Your task to perform on an android device: open app "Google Play Music" (install if not already installed) Image 0: 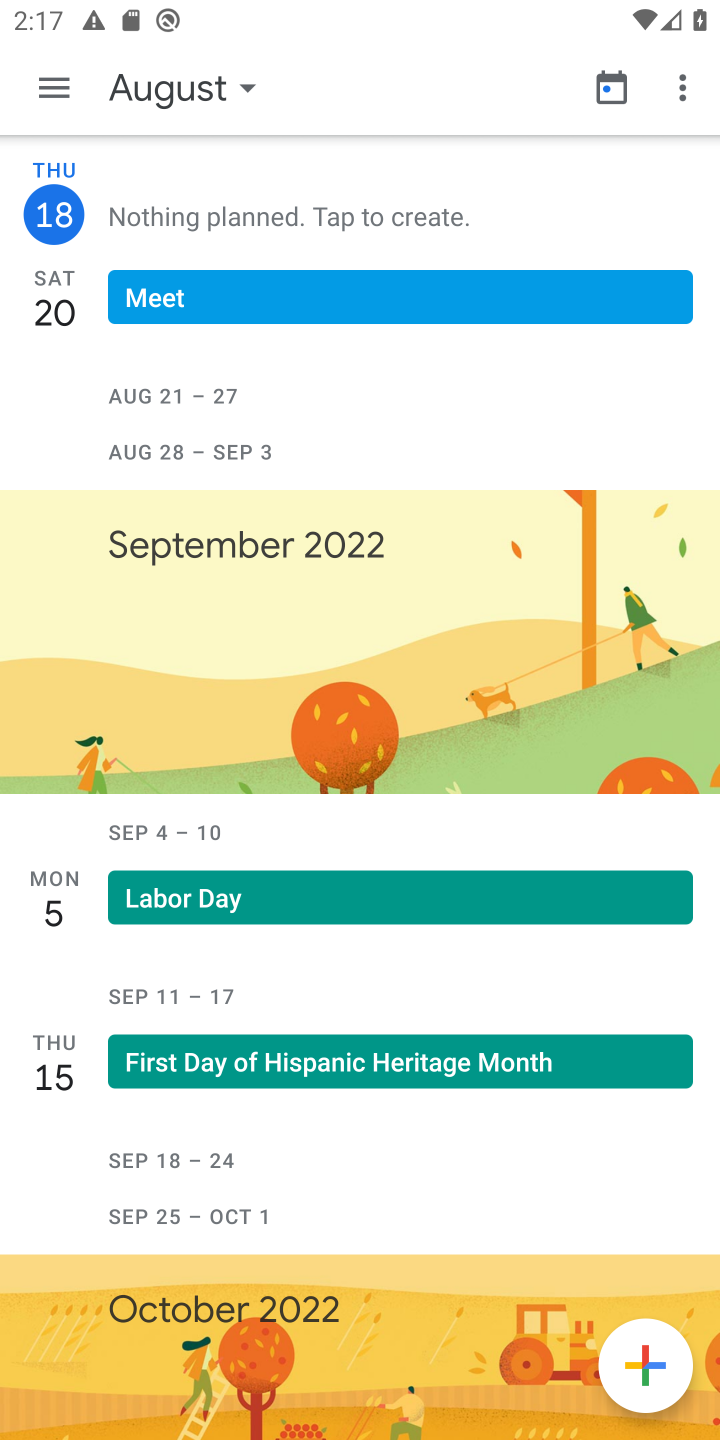
Step 0: press home button
Your task to perform on an android device: open app "Google Play Music" (install if not already installed) Image 1: 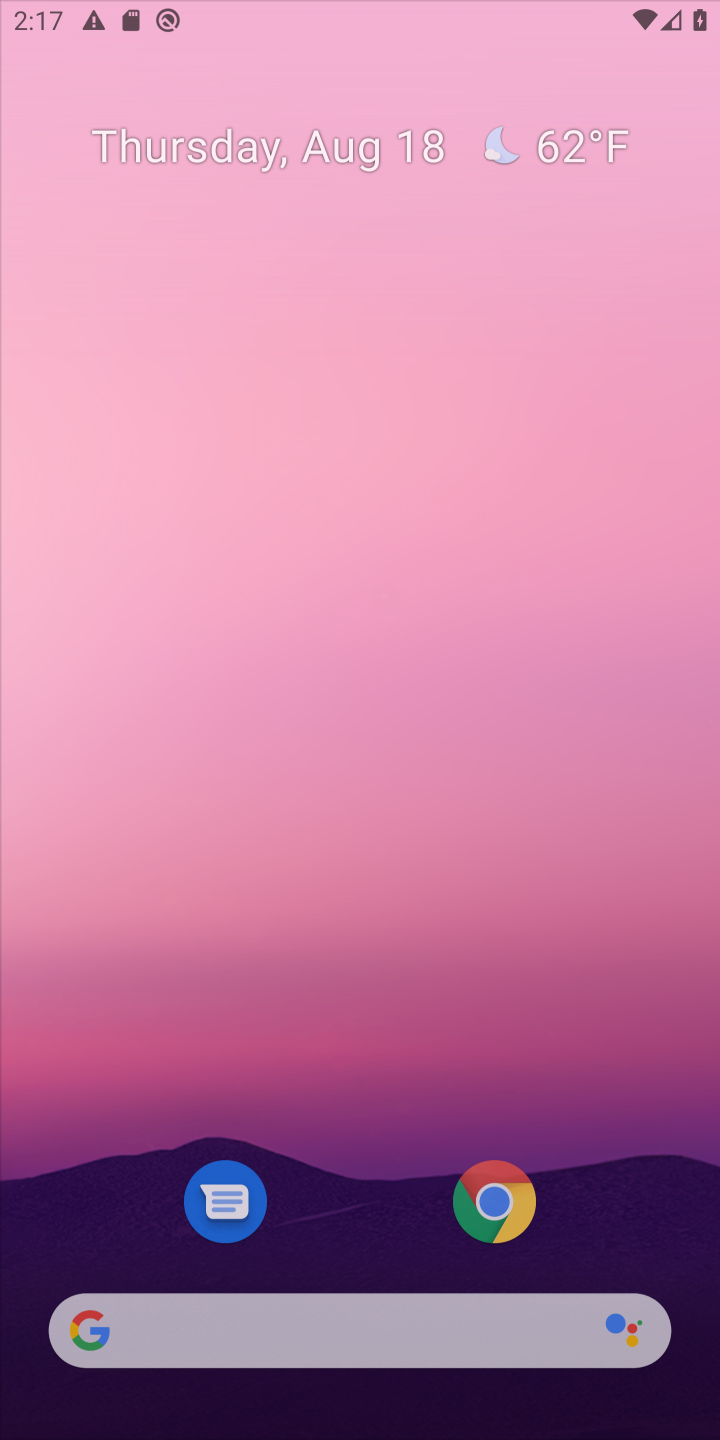
Step 1: drag from (315, 737) to (312, 432)
Your task to perform on an android device: open app "Google Play Music" (install if not already installed) Image 2: 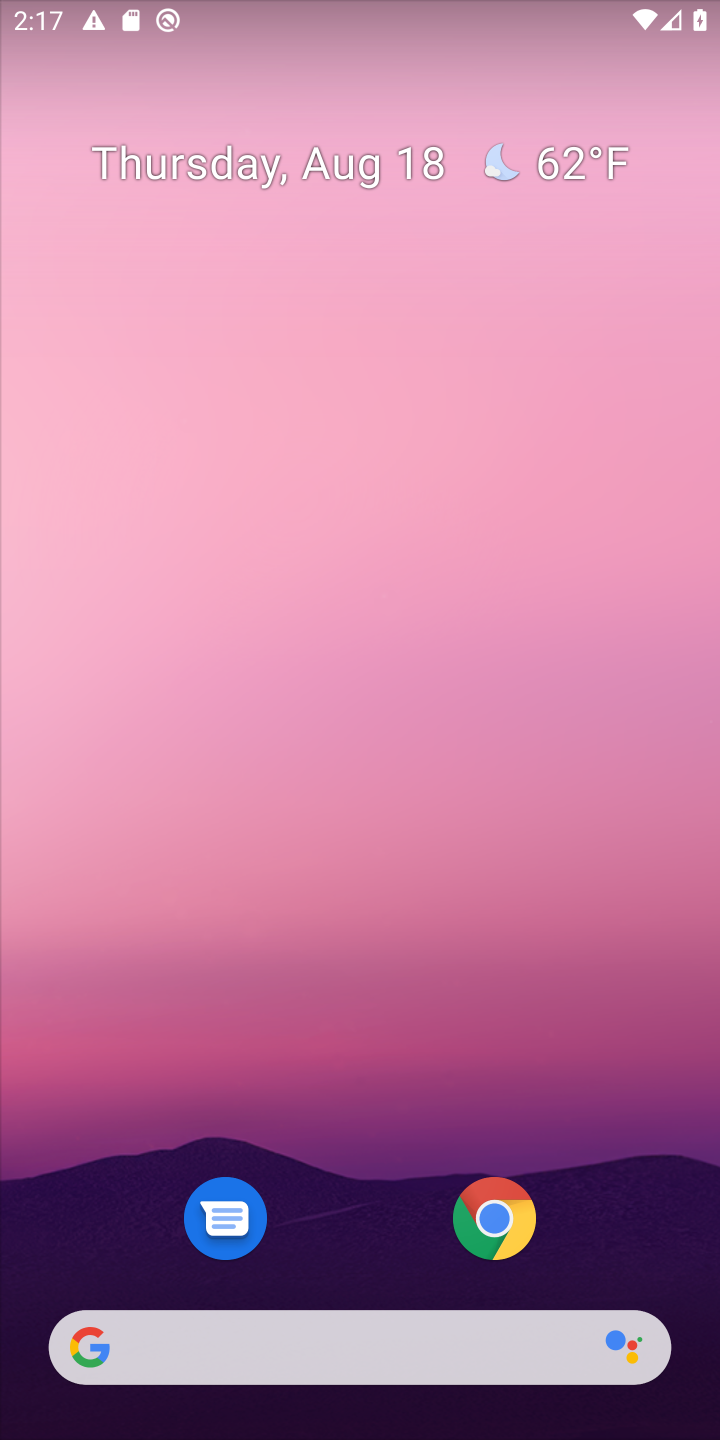
Step 2: drag from (353, 1212) to (361, 361)
Your task to perform on an android device: open app "Google Play Music" (install if not already installed) Image 3: 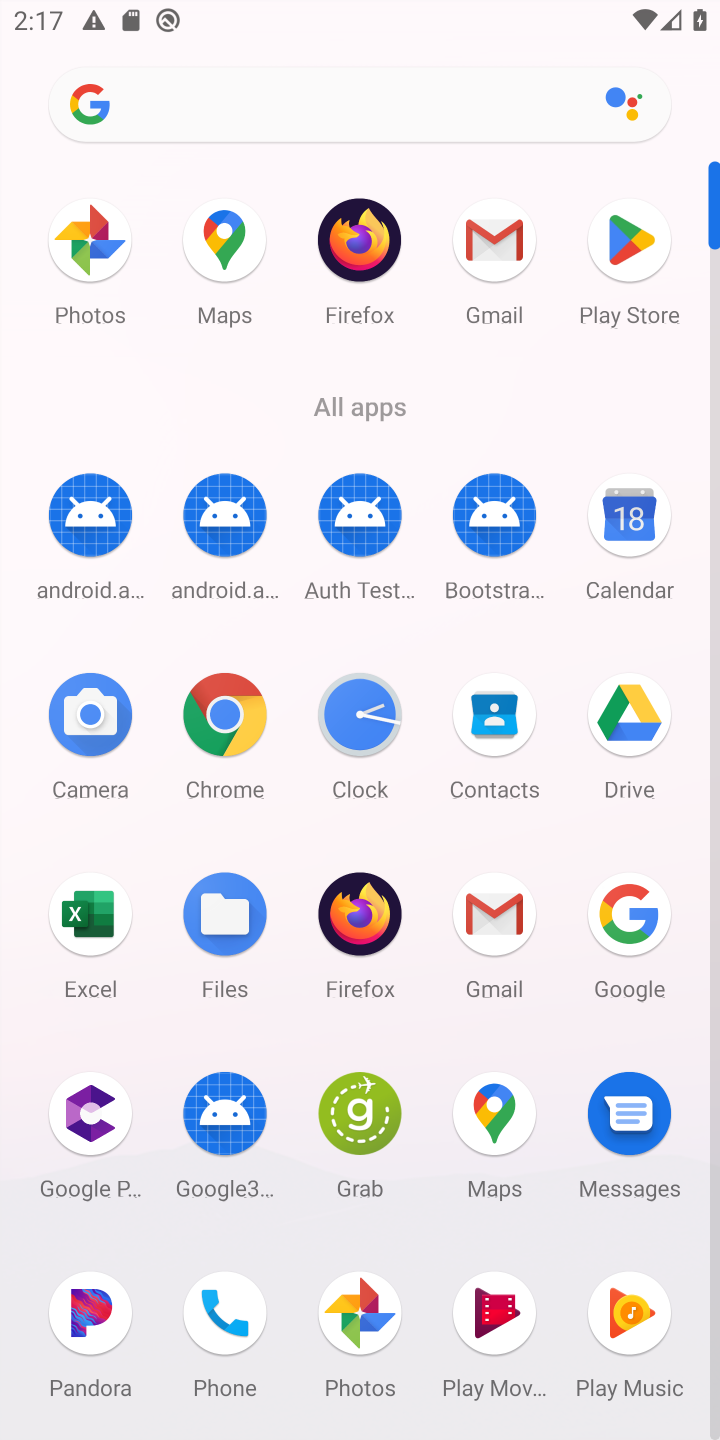
Step 3: click (603, 264)
Your task to perform on an android device: open app "Google Play Music" (install if not already installed) Image 4: 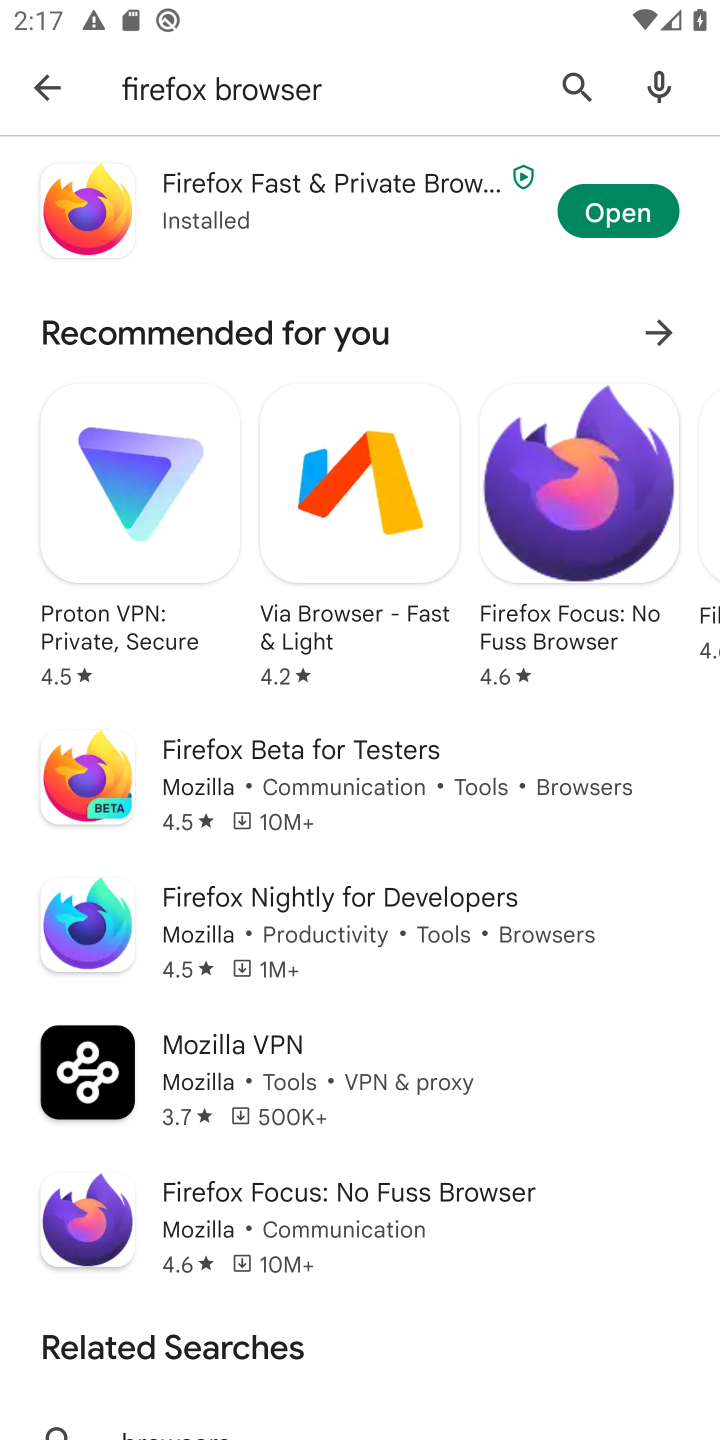
Step 4: click (559, 79)
Your task to perform on an android device: open app "Google Play Music" (install if not already installed) Image 5: 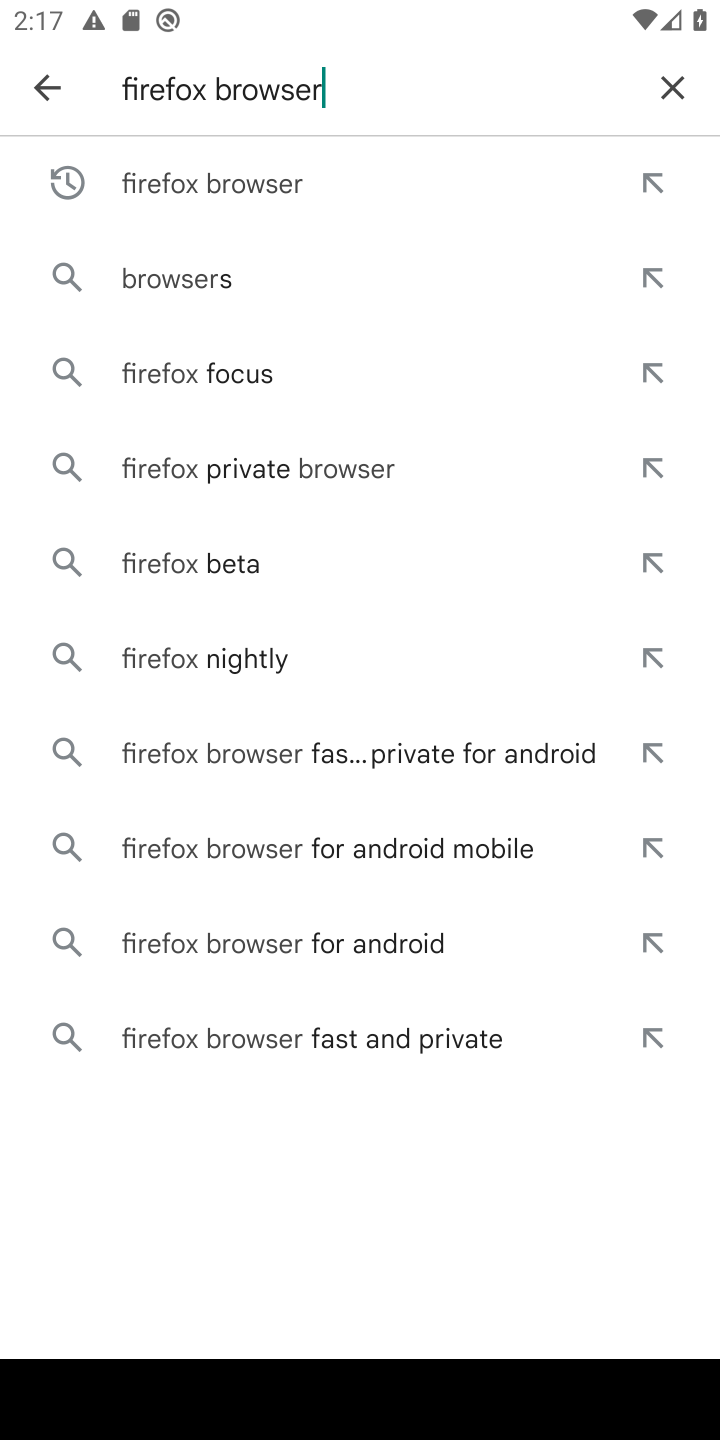
Step 5: click (676, 77)
Your task to perform on an android device: open app "Google Play Music" (install if not already installed) Image 6: 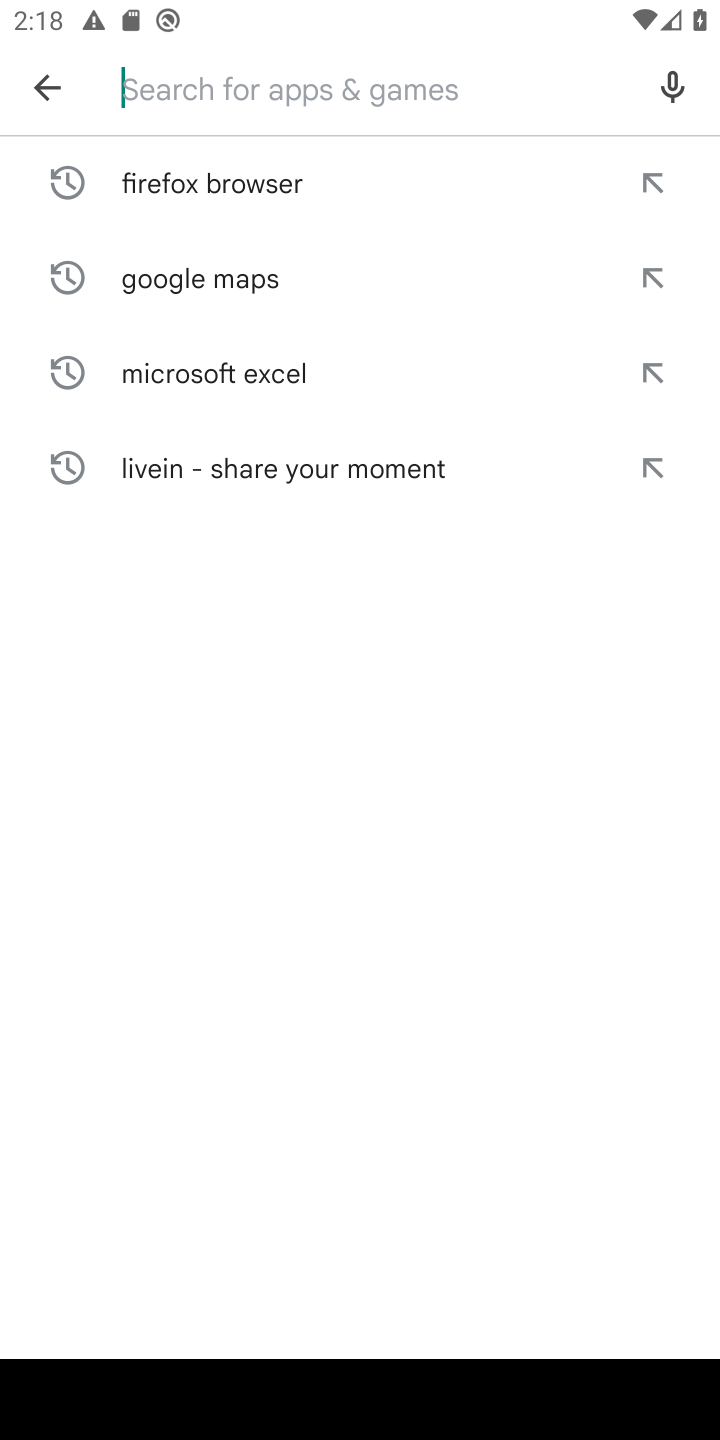
Step 6: type "Google Play Music"
Your task to perform on an android device: open app "Google Play Music" (install if not already installed) Image 7: 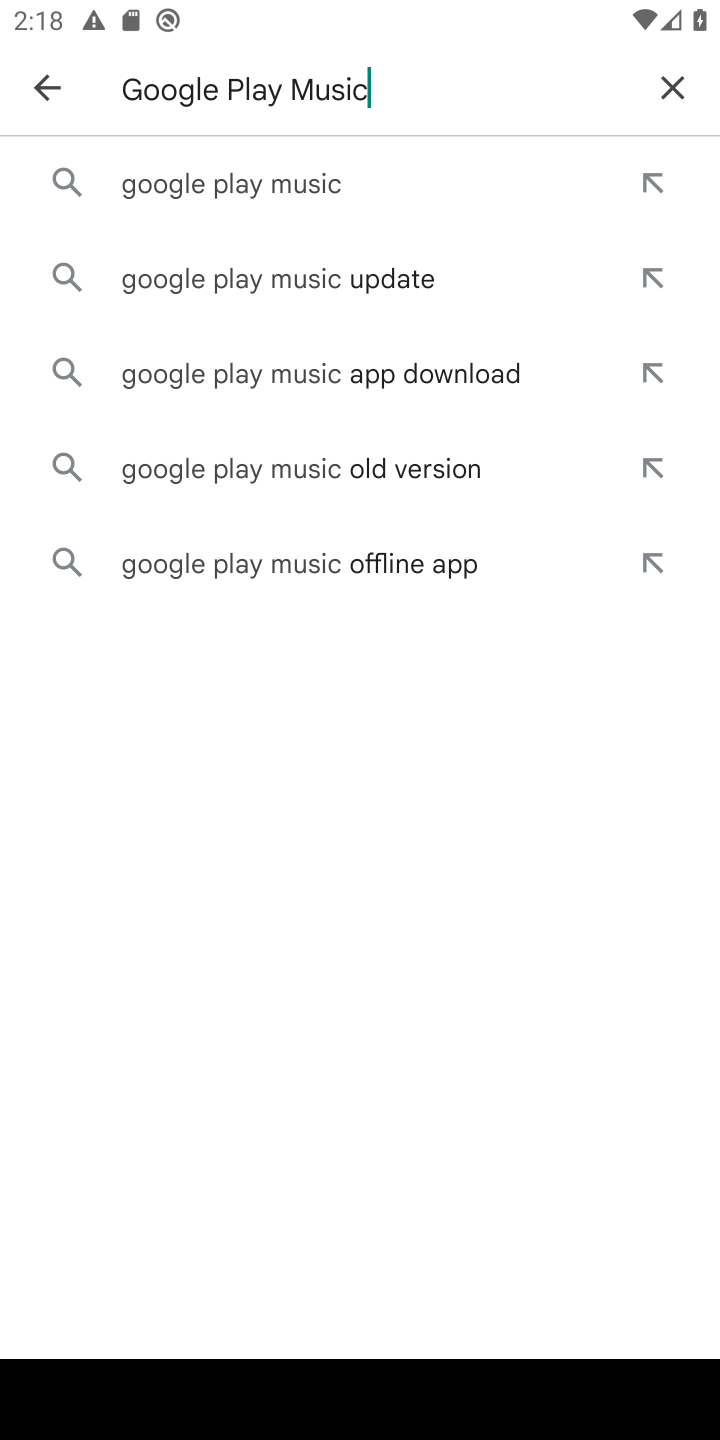
Step 7: click (343, 195)
Your task to perform on an android device: open app "Google Play Music" (install if not already installed) Image 8: 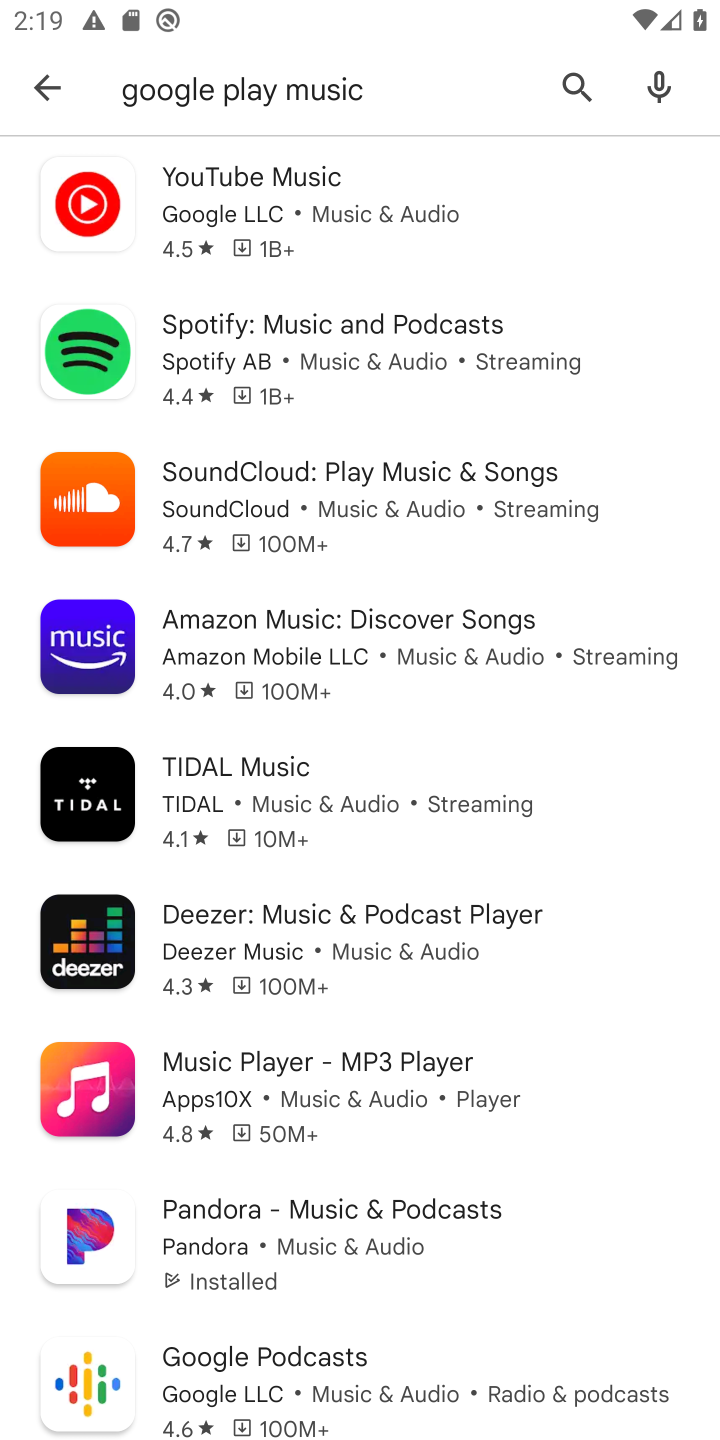
Step 8: task complete